Your task to perform on an android device: show emergency info Image 0: 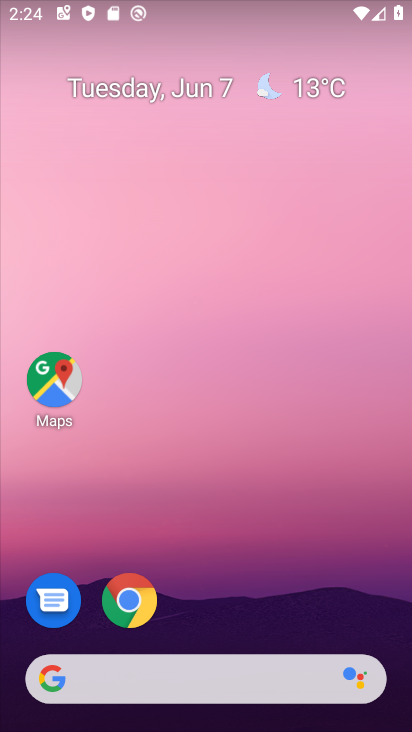
Step 0: drag from (199, 440) to (143, 72)
Your task to perform on an android device: show emergency info Image 1: 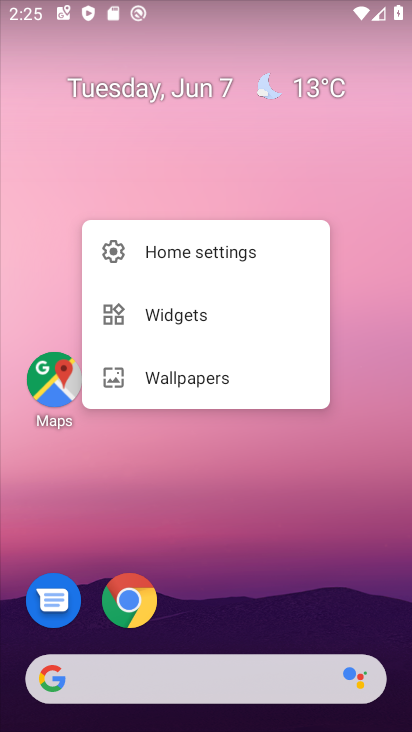
Step 1: click (254, 524)
Your task to perform on an android device: show emergency info Image 2: 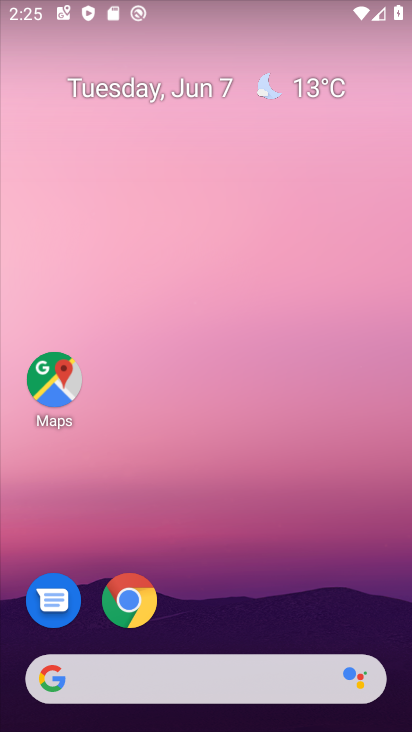
Step 2: drag from (199, 294) to (206, 125)
Your task to perform on an android device: show emergency info Image 3: 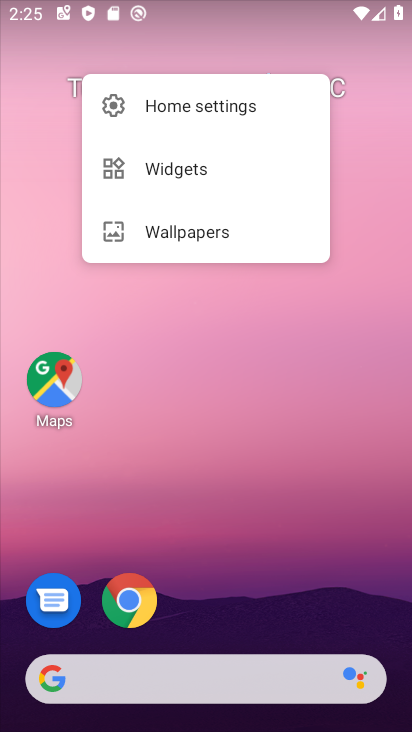
Step 3: click (219, 493)
Your task to perform on an android device: show emergency info Image 4: 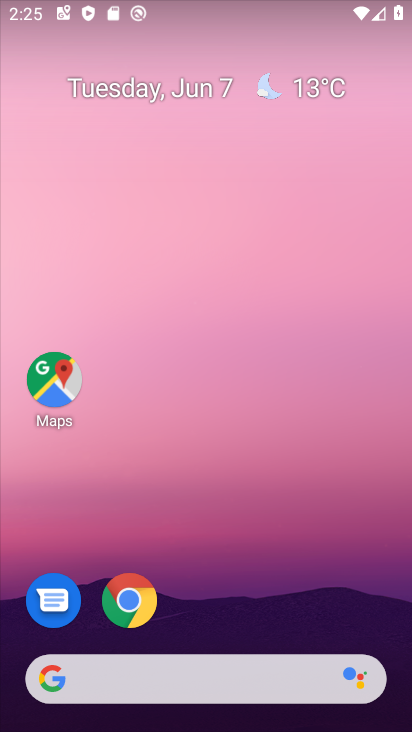
Step 4: drag from (211, 566) to (258, 95)
Your task to perform on an android device: show emergency info Image 5: 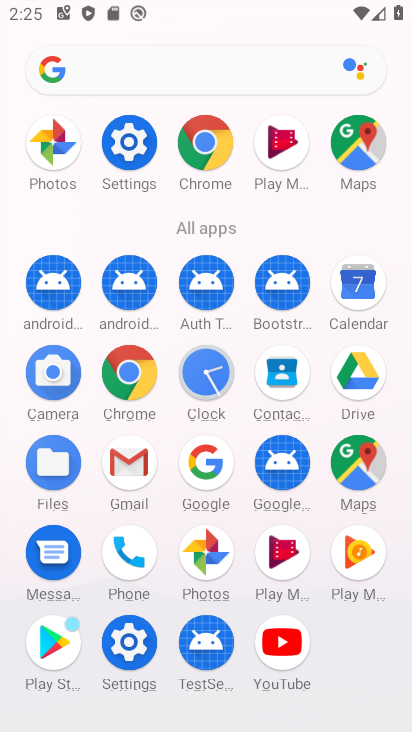
Step 5: click (139, 136)
Your task to perform on an android device: show emergency info Image 6: 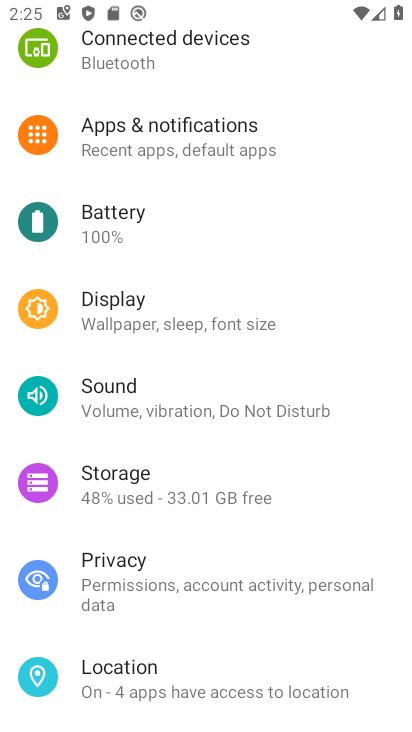
Step 6: drag from (285, 448) to (283, 150)
Your task to perform on an android device: show emergency info Image 7: 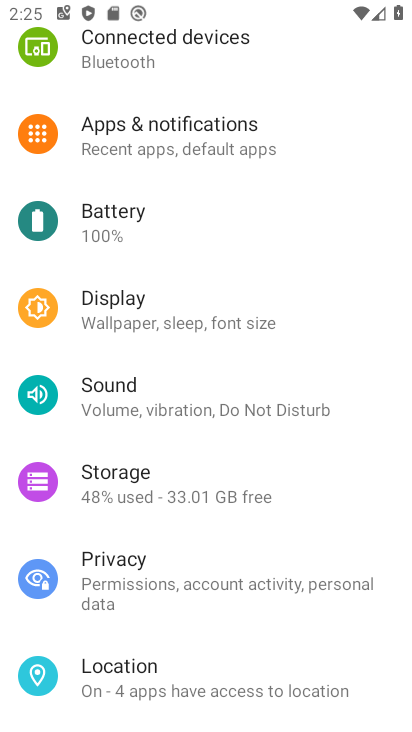
Step 7: drag from (244, 639) to (241, 120)
Your task to perform on an android device: show emergency info Image 8: 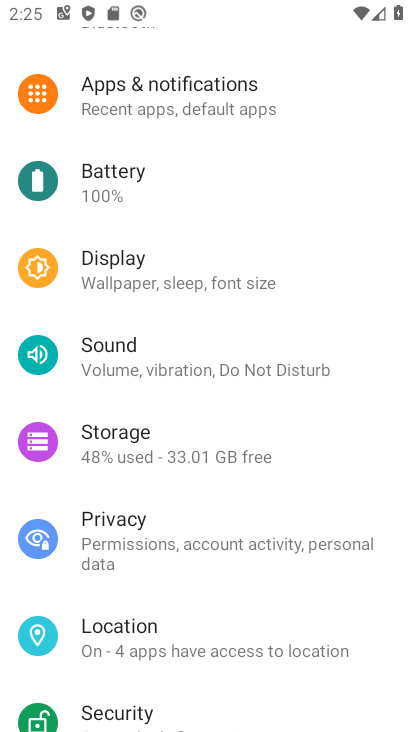
Step 8: drag from (212, 454) to (231, 124)
Your task to perform on an android device: show emergency info Image 9: 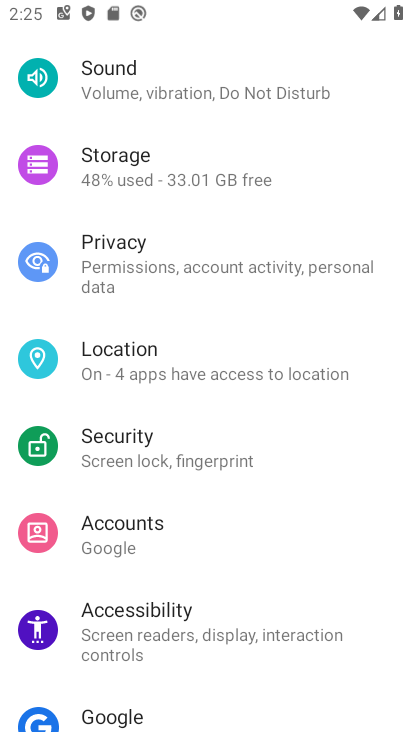
Step 9: drag from (238, 455) to (247, 101)
Your task to perform on an android device: show emergency info Image 10: 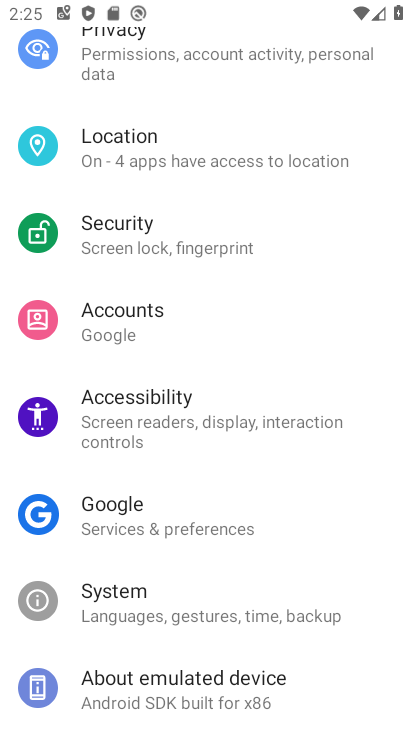
Step 10: click (168, 703)
Your task to perform on an android device: show emergency info Image 11: 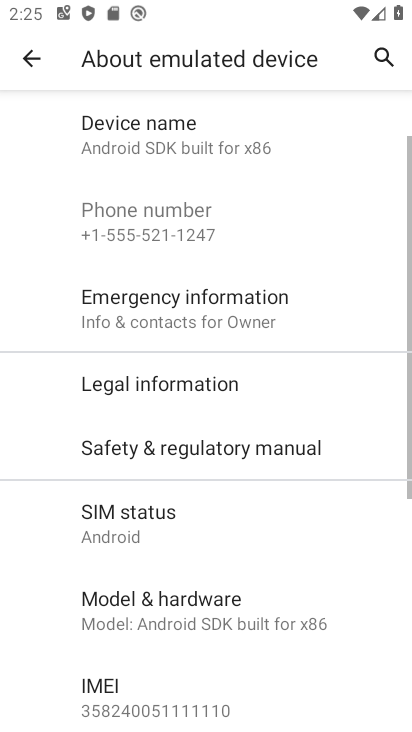
Step 11: click (149, 321)
Your task to perform on an android device: show emergency info Image 12: 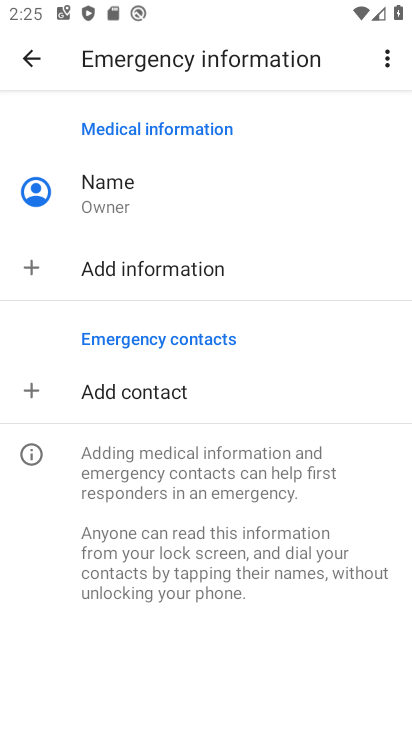
Step 12: task complete